Your task to perform on an android device: Show me popular videos on Youtube Image 0: 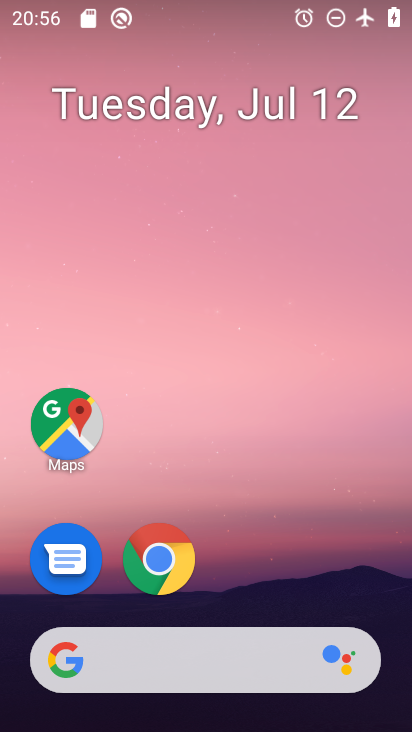
Step 0: drag from (375, 582) to (381, 176)
Your task to perform on an android device: Show me popular videos on Youtube Image 1: 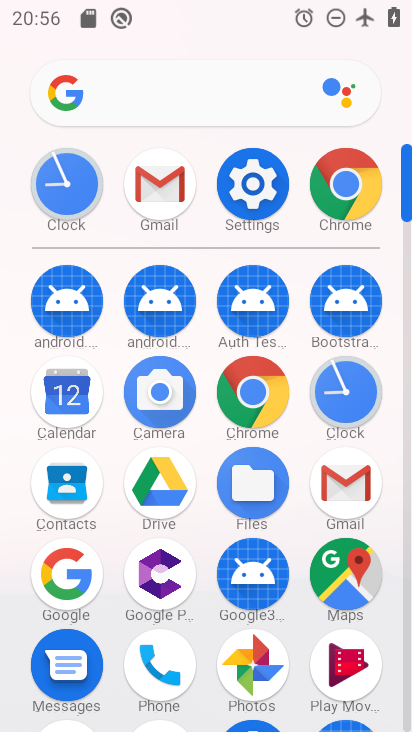
Step 1: drag from (384, 631) to (391, 398)
Your task to perform on an android device: Show me popular videos on Youtube Image 2: 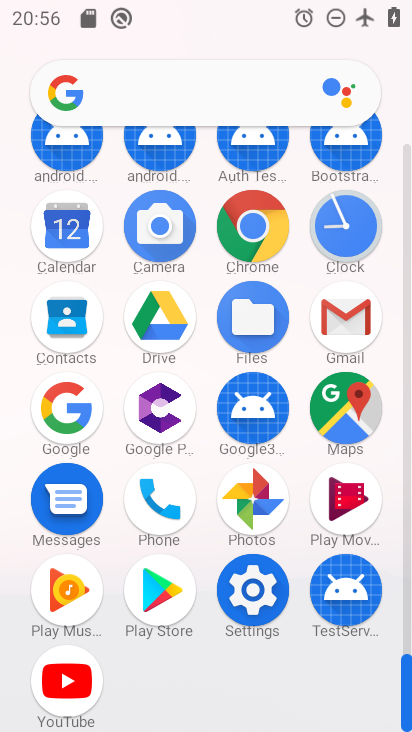
Step 2: click (68, 683)
Your task to perform on an android device: Show me popular videos on Youtube Image 3: 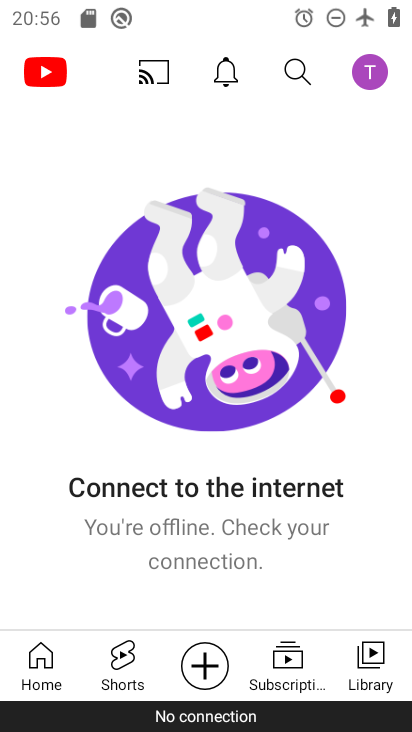
Step 3: task complete